Your task to perform on an android device: empty trash in google photos Image 0: 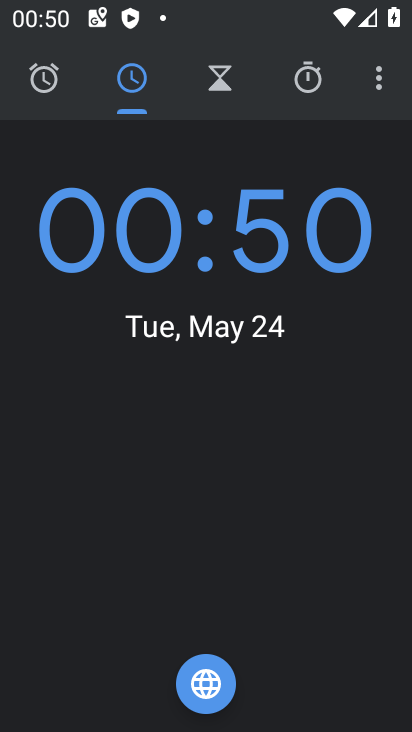
Step 0: press home button
Your task to perform on an android device: empty trash in google photos Image 1: 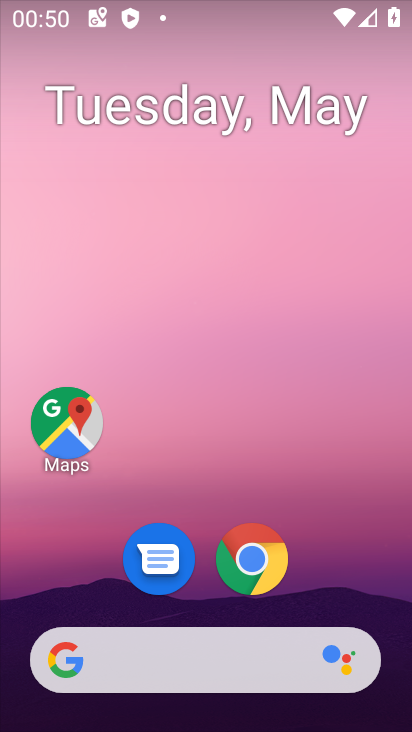
Step 1: drag from (311, 565) to (285, 292)
Your task to perform on an android device: empty trash in google photos Image 2: 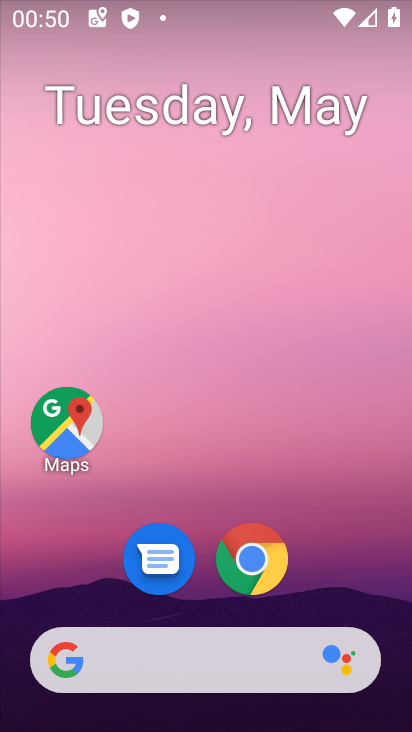
Step 2: drag from (343, 535) to (296, 245)
Your task to perform on an android device: empty trash in google photos Image 3: 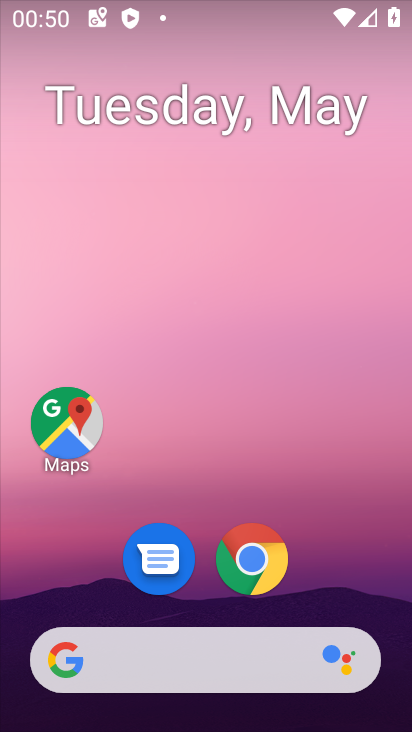
Step 3: drag from (299, 547) to (175, 137)
Your task to perform on an android device: empty trash in google photos Image 4: 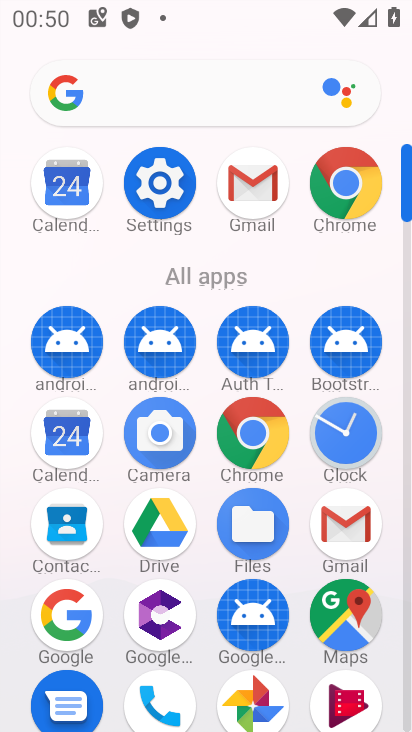
Step 4: drag from (269, 656) to (265, 341)
Your task to perform on an android device: empty trash in google photos Image 5: 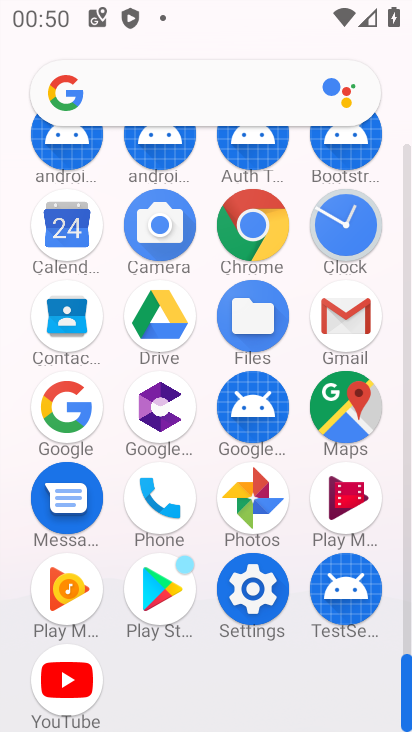
Step 5: click (254, 490)
Your task to perform on an android device: empty trash in google photos Image 6: 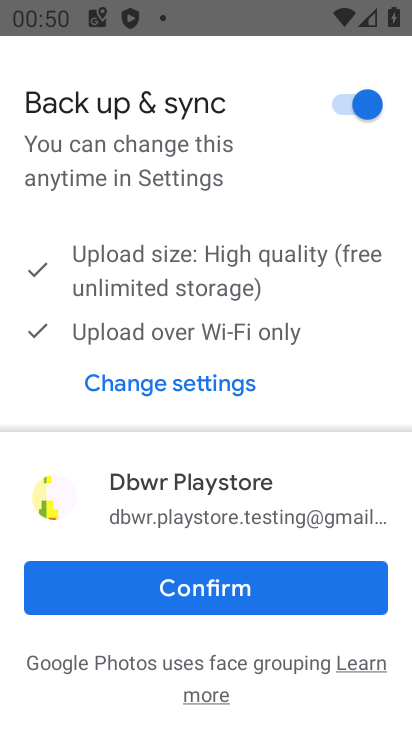
Step 6: click (245, 589)
Your task to perform on an android device: empty trash in google photos Image 7: 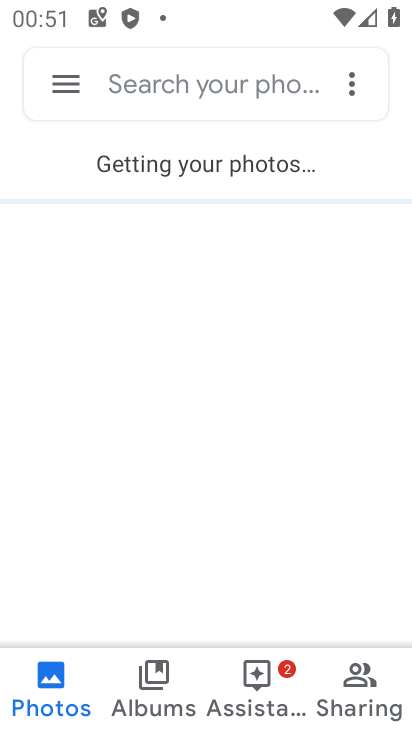
Step 7: click (62, 80)
Your task to perform on an android device: empty trash in google photos Image 8: 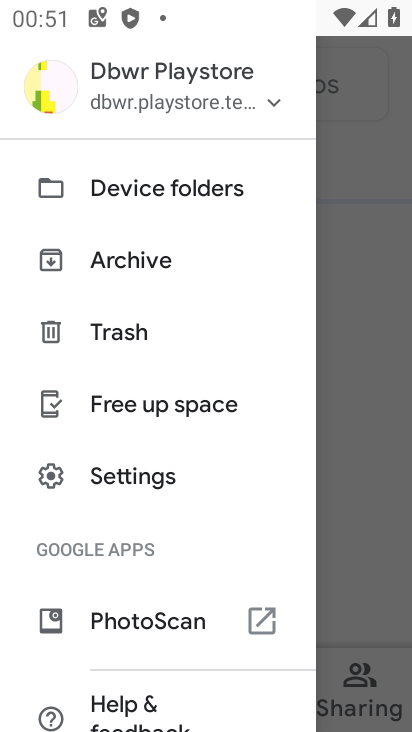
Step 8: drag from (188, 459) to (177, 227)
Your task to perform on an android device: empty trash in google photos Image 9: 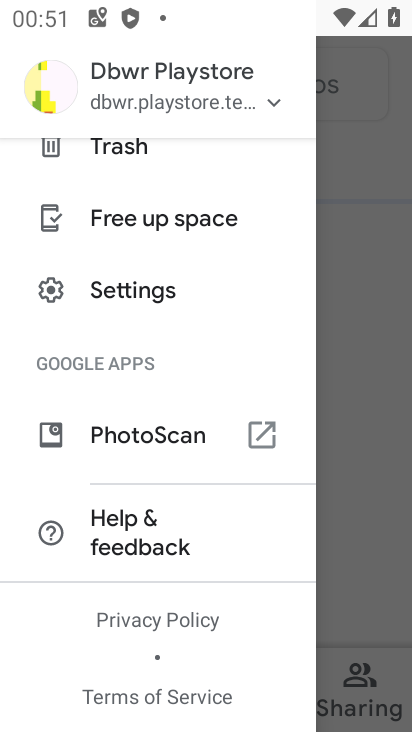
Step 9: click (192, 316)
Your task to perform on an android device: empty trash in google photos Image 10: 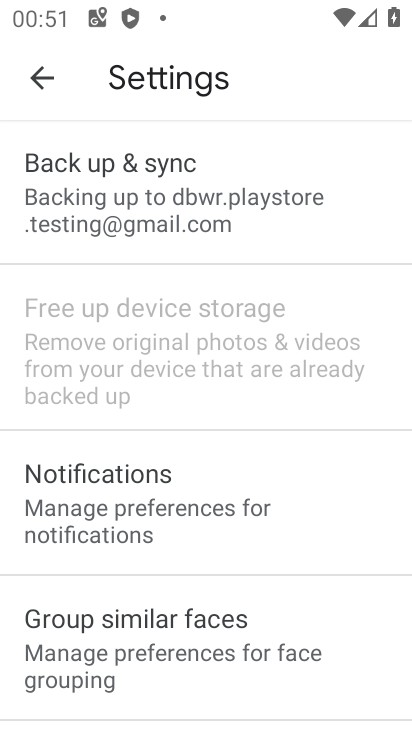
Step 10: drag from (158, 636) to (148, 224)
Your task to perform on an android device: empty trash in google photos Image 11: 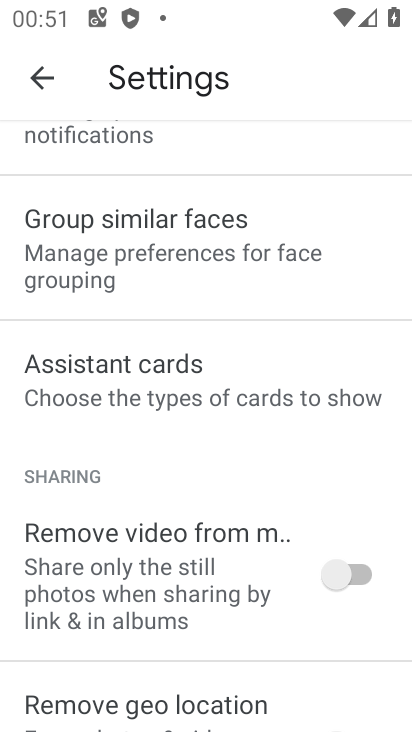
Step 11: drag from (176, 618) to (180, 320)
Your task to perform on an android device: empty trash in google photos Image 12: 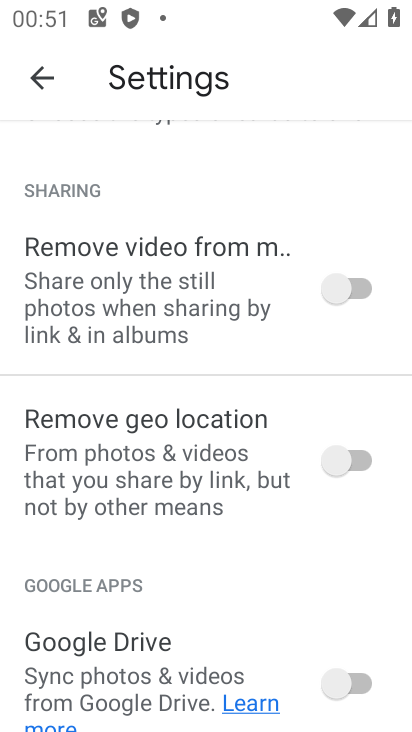
Step 12: drag from (177, 596) to (145, 248)
Your task to perform on an android device: empty trash in google photos Image 13: 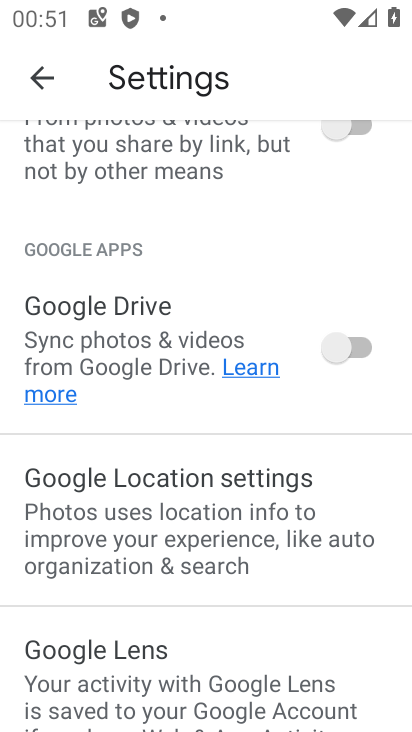
Step 13: drag from (170, 590) to (129, 295)
Your task to perform on an android device: empty trash in google photos Image 14: 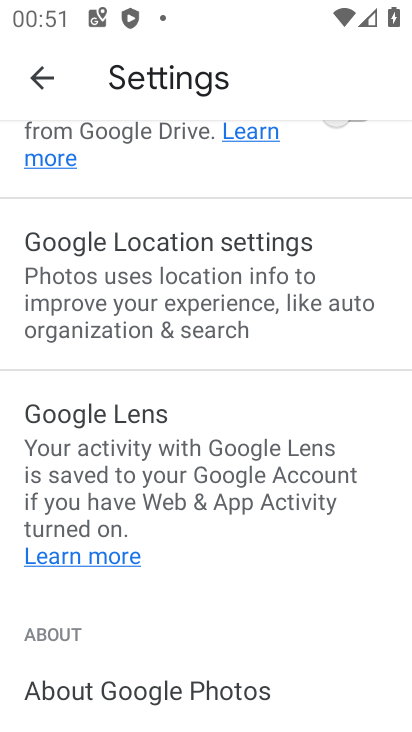
Step 14: drag from (203, 568) to (197, 259)
Your task to perform on an android device: empty trash in google photos Image 15: 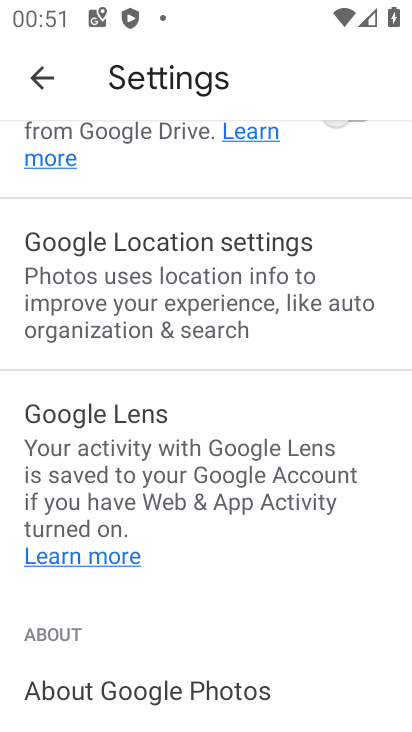
Step 15: press back button
Your task to perform on an android device: empty trash in google photos Image 16: 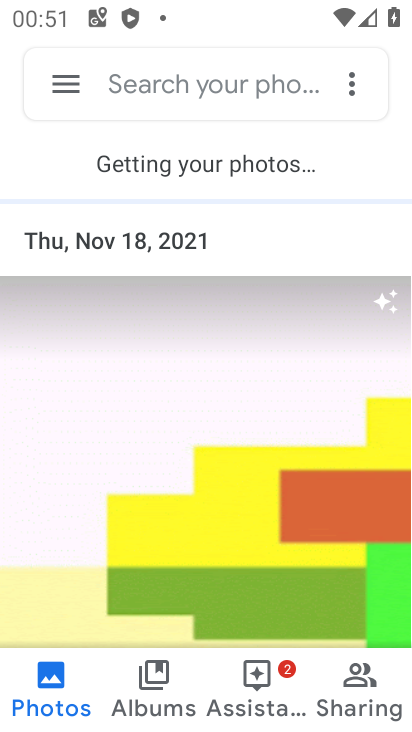
Step 16: click (61, 86)
Your task to perform on an android device: empty trash in google photos Image 17: 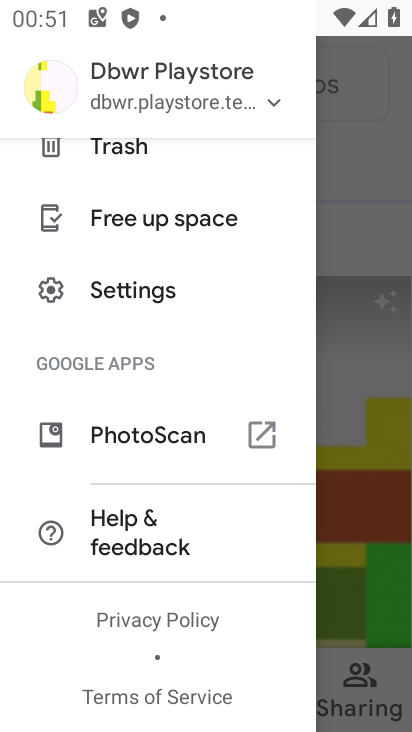
Step 17: click (117, 144)
Your task to perform on an android device: empty trash in google photos Image 18: 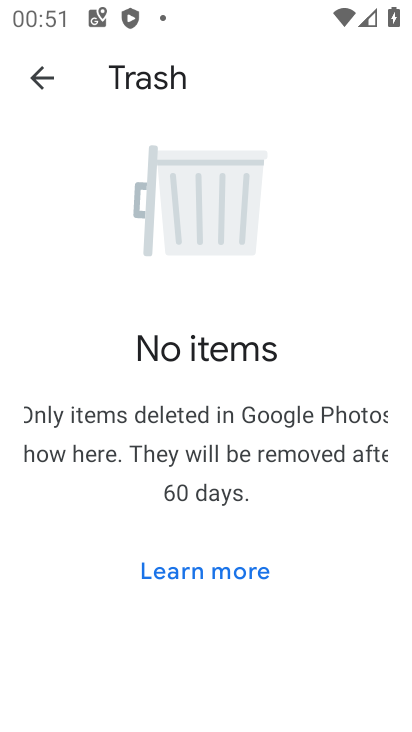
Step 18: task complete